Your task to perform on an android device: What's the weather going to be this weekend? Image 0: 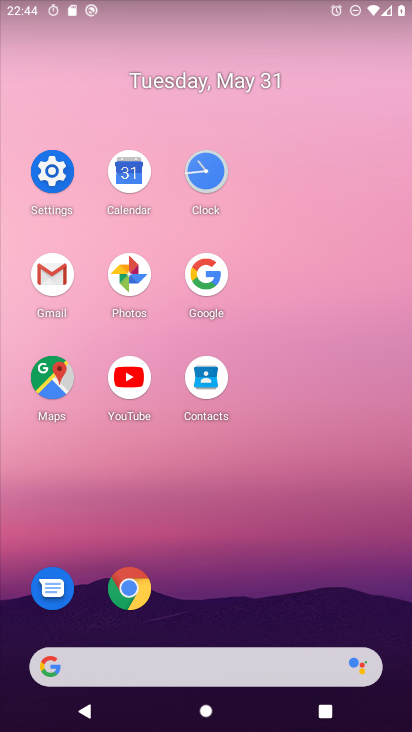
Step 0: click (208, 287)
Your task to perform on an android device: What's the weather going to be this weekend? Image 1: 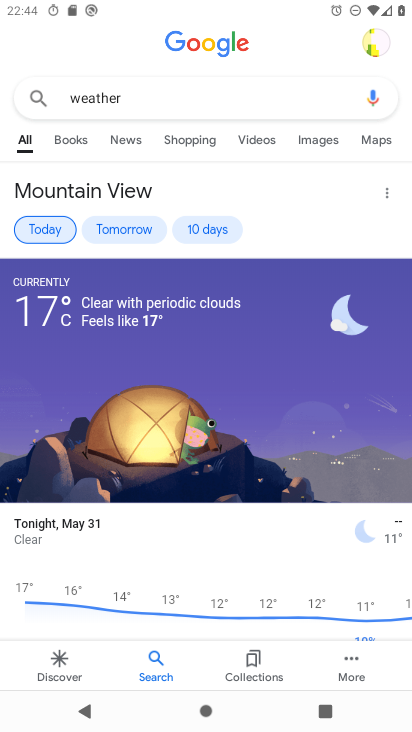
Step 1: click (198, 233)
Your task to perform on an android device: What's the weather going to be this weekend? Image 2: 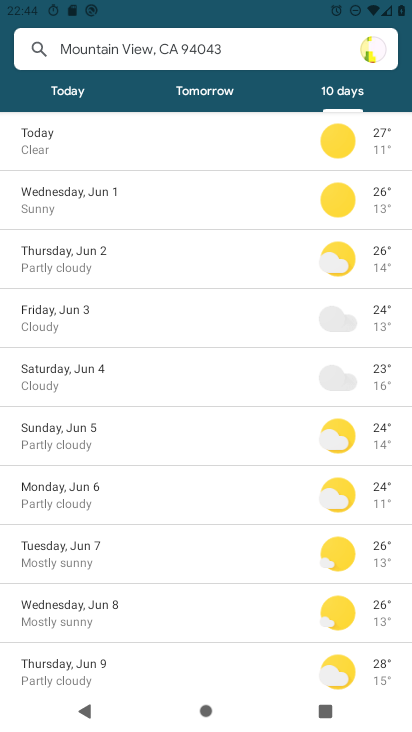
Step 2: click (192, 390)
Your task to perform on an android device: What's the weather going to be this weekend? Image 3: 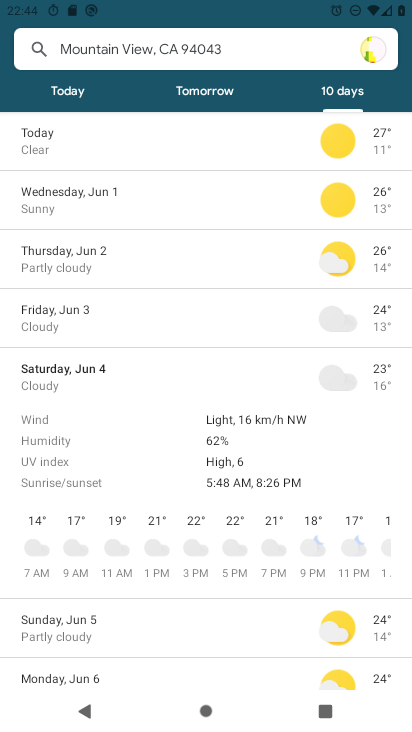
Step 3: task complete